Your task to perform on an android device: toggle data saver in the chrome app Image 0: 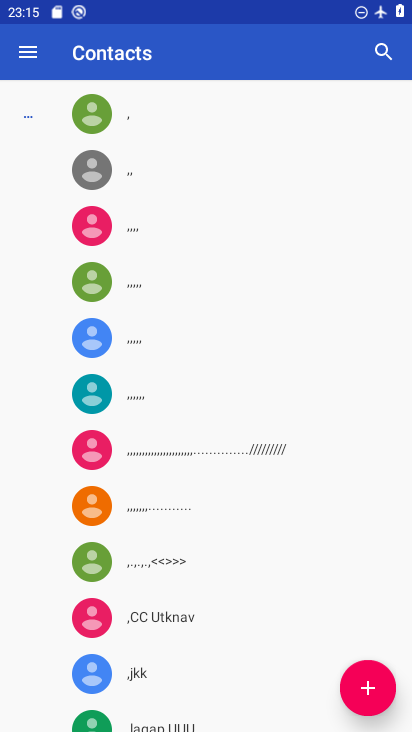
Step 0: press home button
Your task to perform on an android device: toggle data saver in the chrome app Image 1: 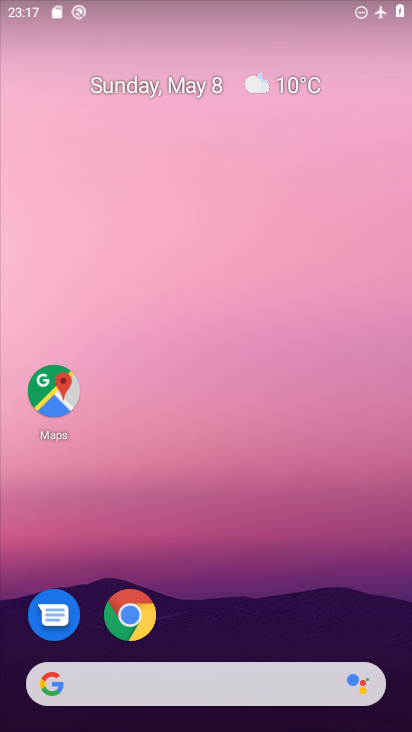
Step 1: click (124, 613)
Your task to perform on an android device: toggle data saver in the chrome app Image 2: 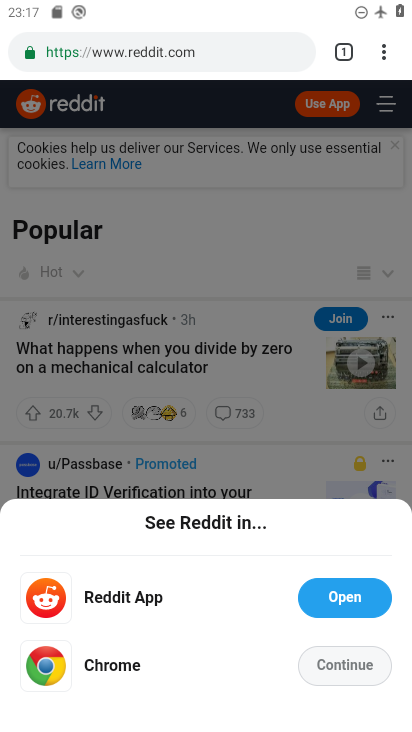
Step 2: drag from (381, 46) to (203, 576)
Your task to perform on an android device: toggle data saver in the chrome app Image 3: 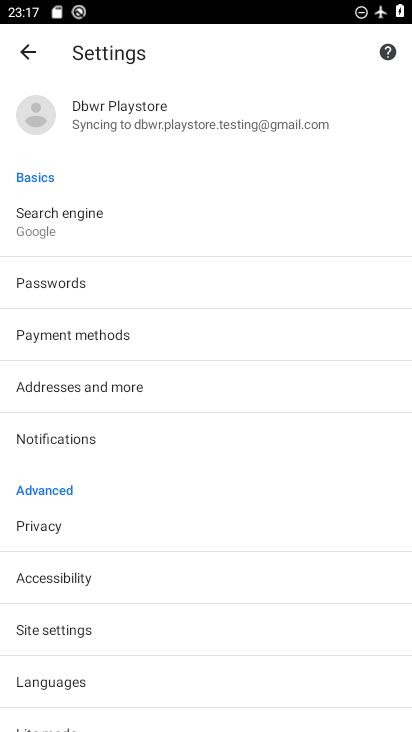
Step 3: drag from (214, 678) to (258, 349)
Your task to perform on an android device: toggle data saver in the chrome app Image 4: 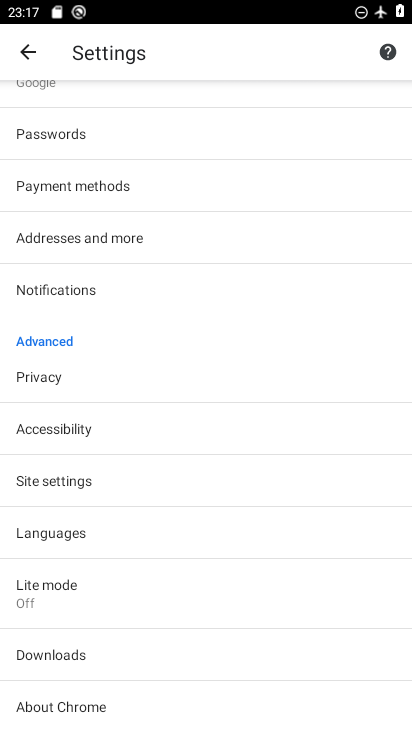
Step 4: click (52, 591)
Your task to perform on an android device: toggle data saver in the chrome app Image 5: 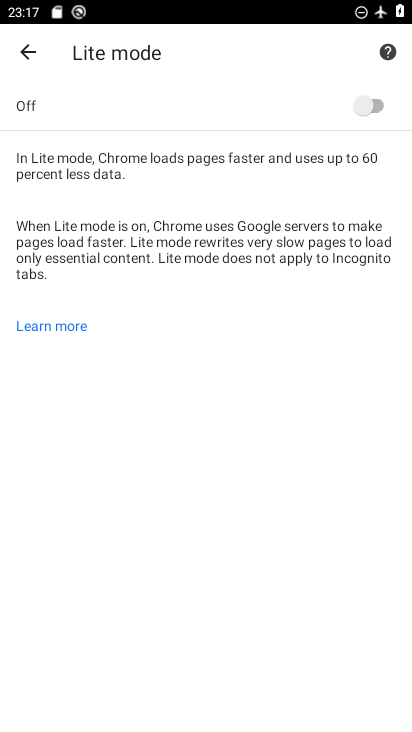
Step 5: click (386, 102)
Your task to perform on an android device: toggle data saver in the chrome app Image 6: 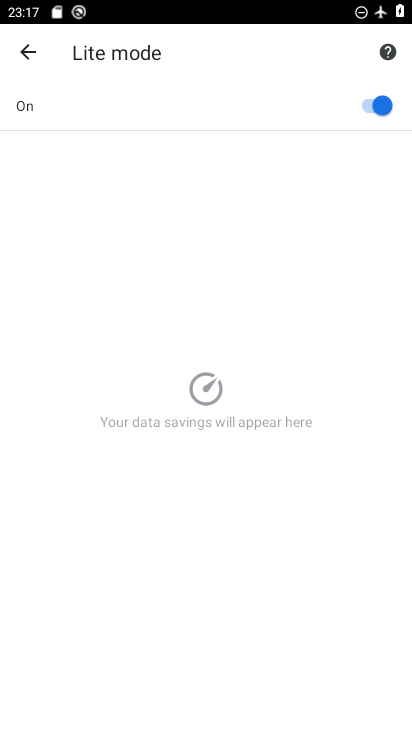
Step 6: task complete